Your task to perform on an android device: Go to settings Image 0: 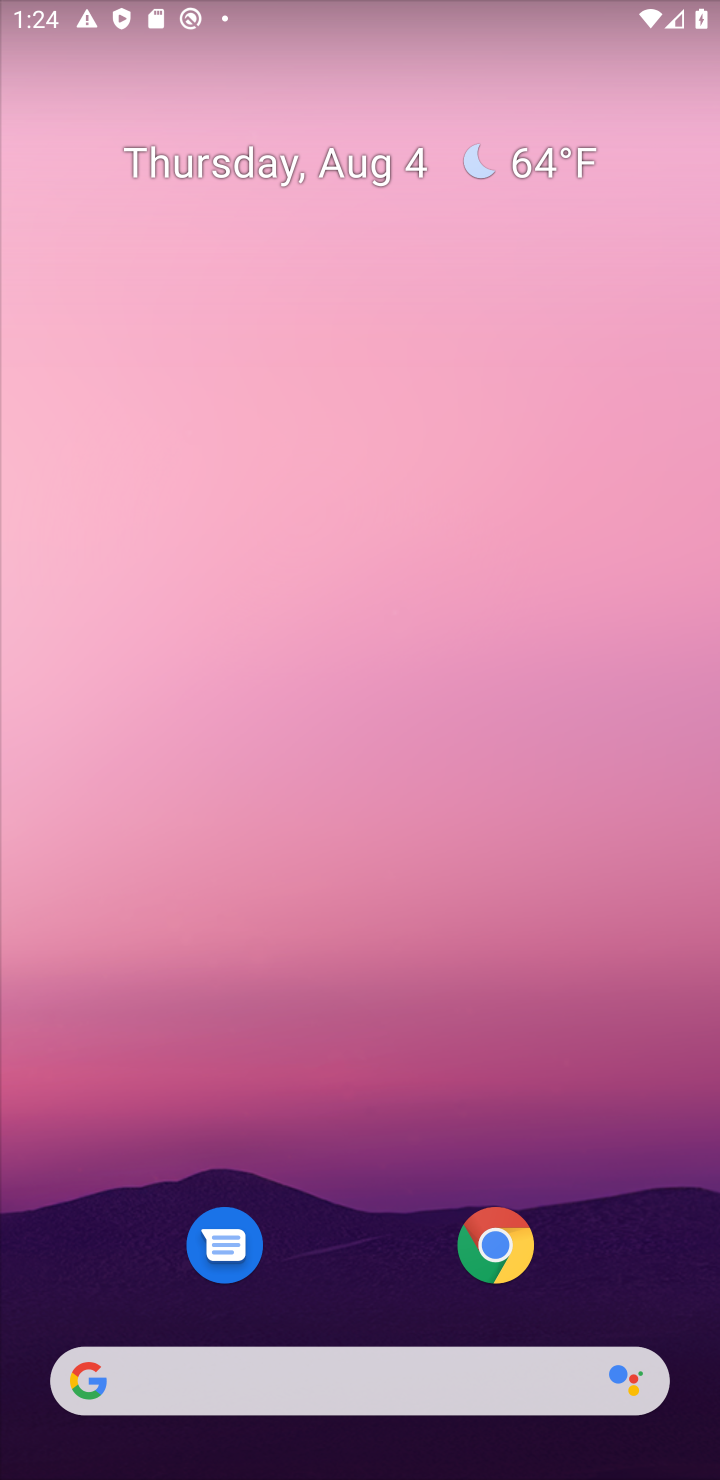
Step 0: drag from (364, 792) to (345, 180)
Your task to perform on an android device: Go to settings Image 1: 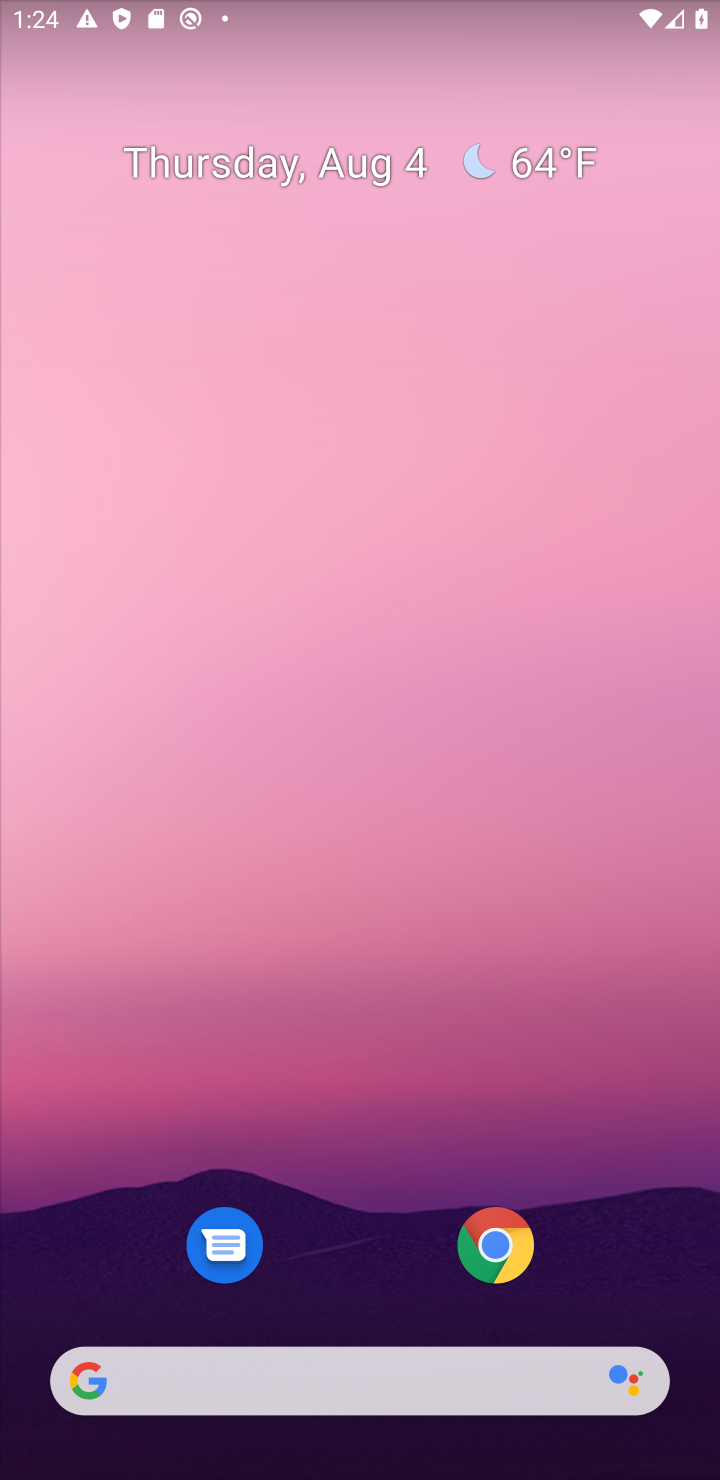
Step 1: drag from (381, 1263) to (366, 354)
Your task to perform on an android device: Go to settings Image 2: 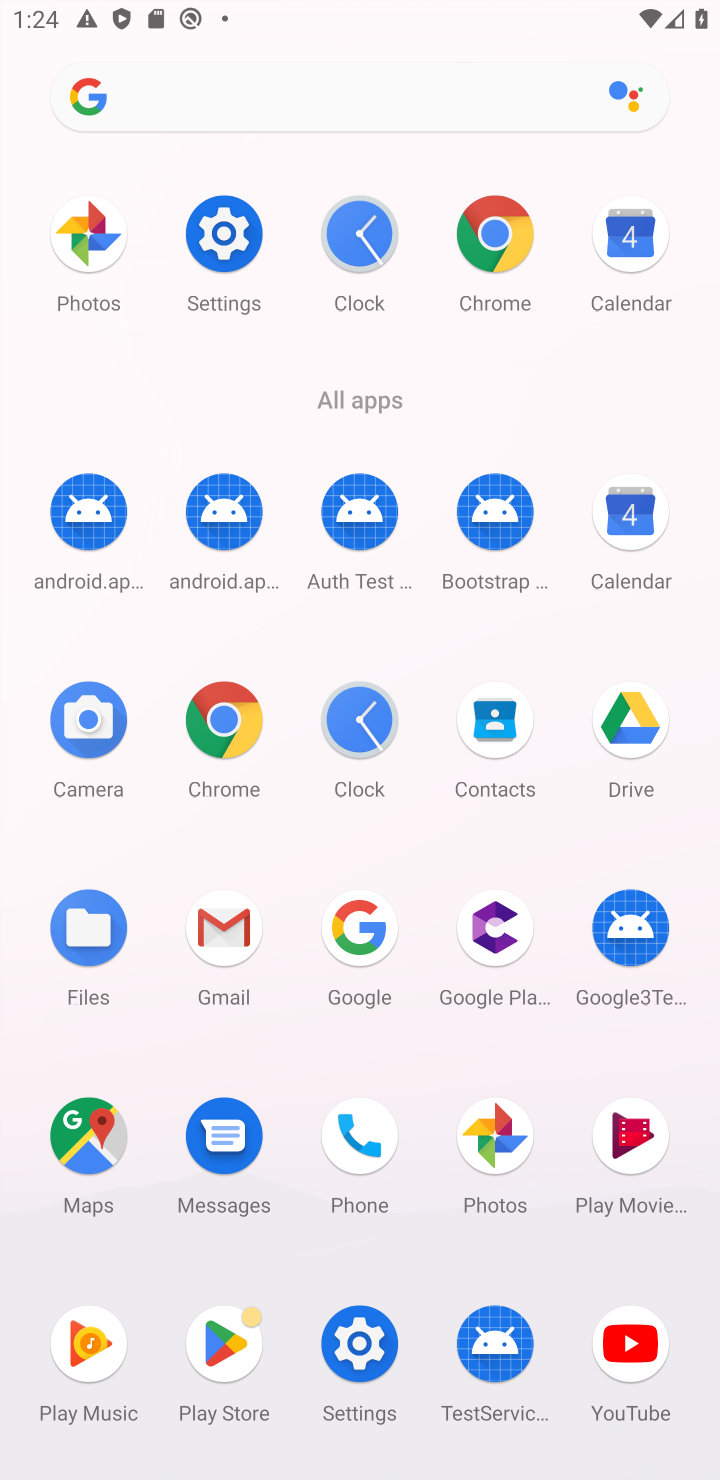
Step 2: click (224, 226)
Your task to perform on an android device: Go to settings Image 3: 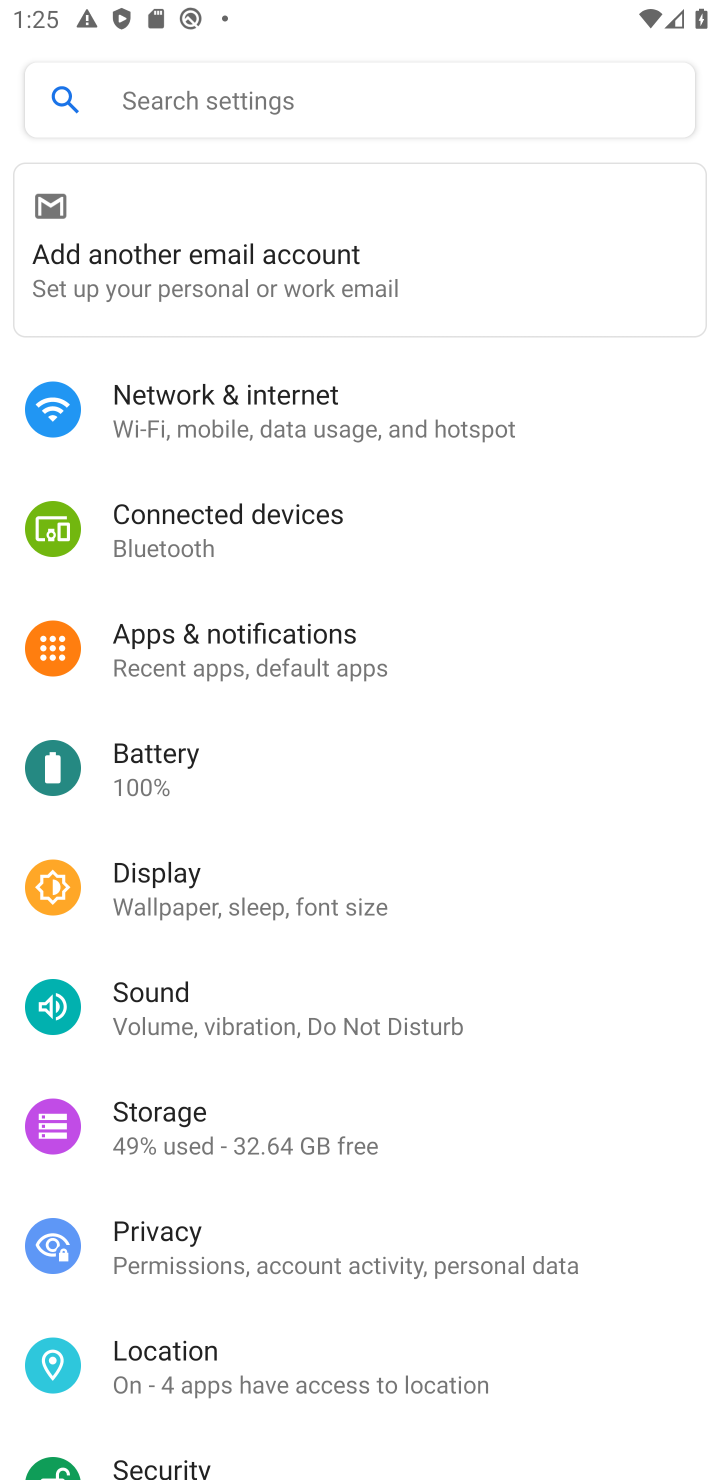
Step 3: task complete